Your task to perform on an android device: turn off airplane mode Image 0: 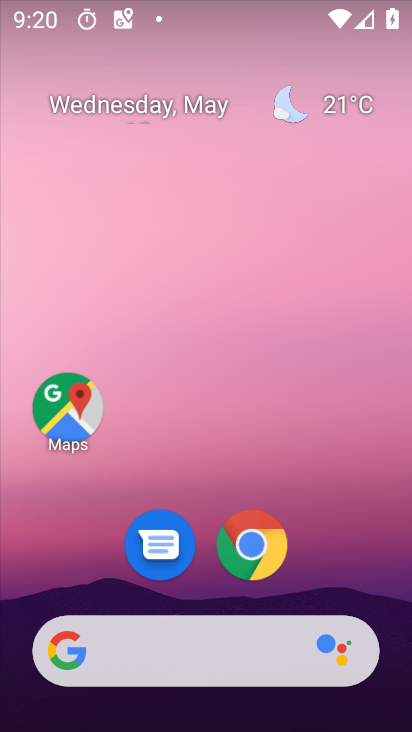
Step 0: drag from (333, 559) to (301, 2)
Your task to perform on an android device: turn off airplane mode Image 1: 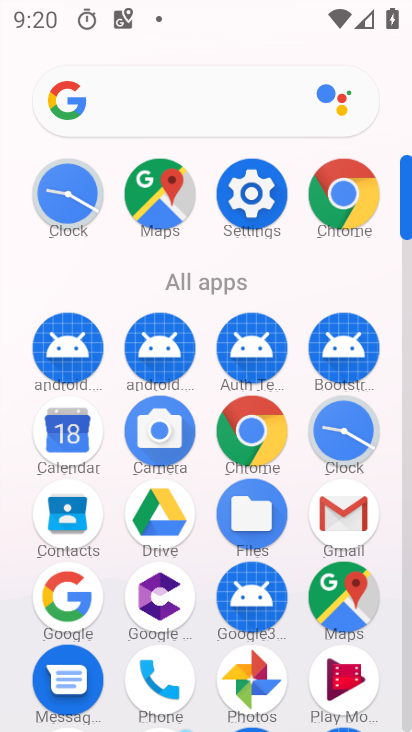
Step 1: click (253, 199)
Your task to perform on an android device: turn off airplane mode Image 2: 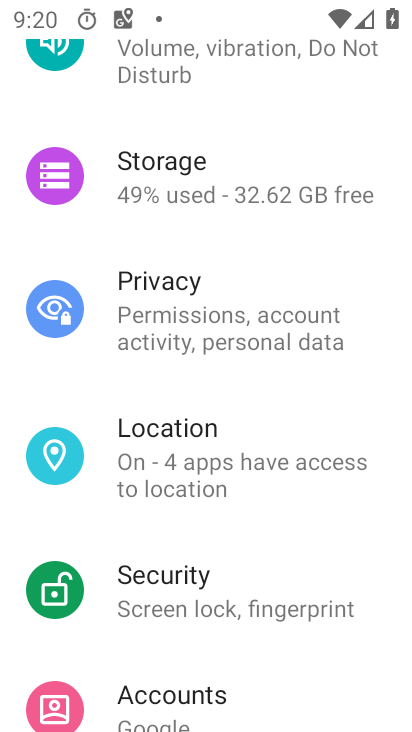
Step 2: drag from (244, 226) to (258, 491)
Your task to perform on an android device: turn off airplane mode Image 3: 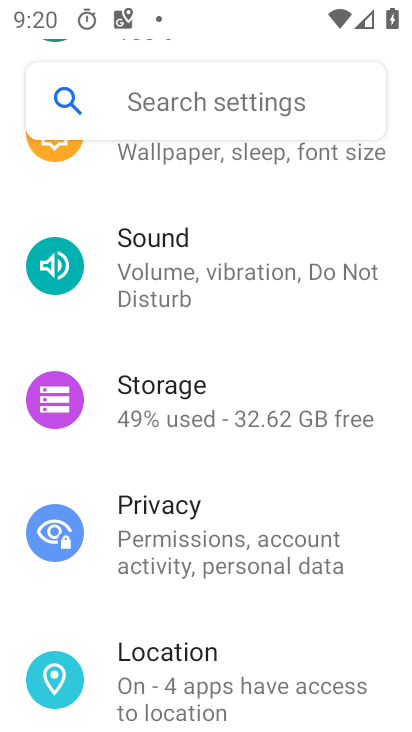
Step 3: drag from (208, 244) to (215, 565)
Your task to perform on an android device: turn off airplane mode Image 4: 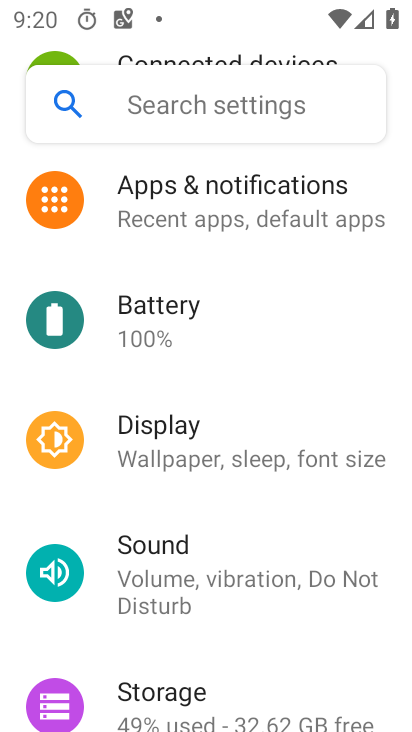
Step 4: drag from (271, 257) to (224, 556)
Your task to perform on an android device: turn off airplane mode Image 5: 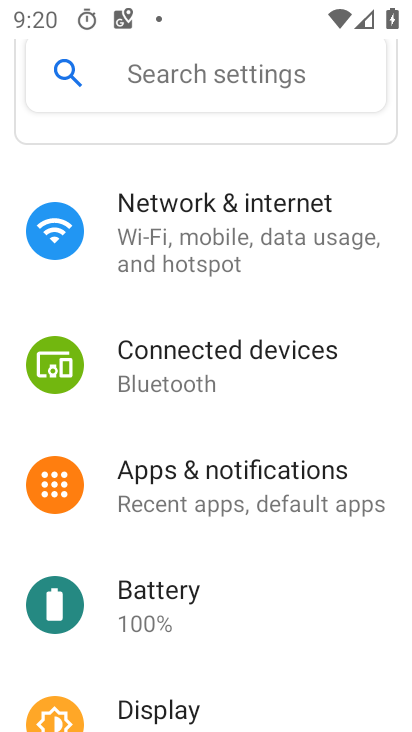
Step 5: click (261, 233)
Your task to perform on an android device: turn off airplane mode Image 6: 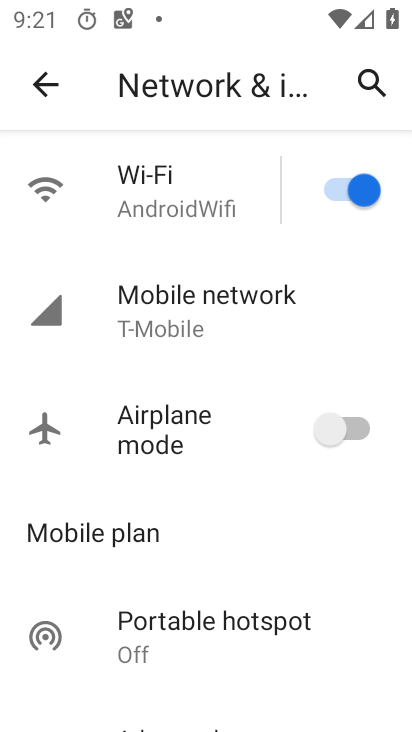
Step 6: task complete